Your task to perform on an android device: delete location history Image 0: 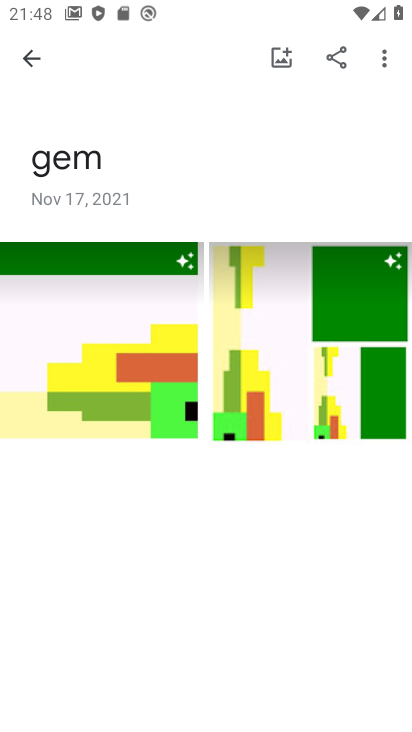
Step 0: press home button
Your task to perform on an android device: delete location history Image 1: 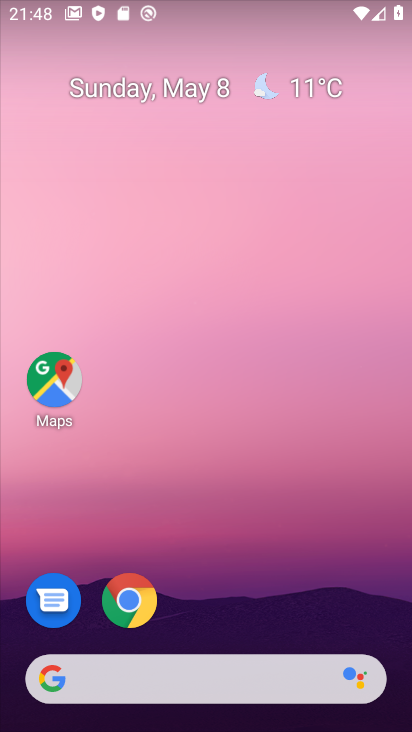
Step 1: click (48, 381)
Your task to perform on an android device: delete location history Image 2: 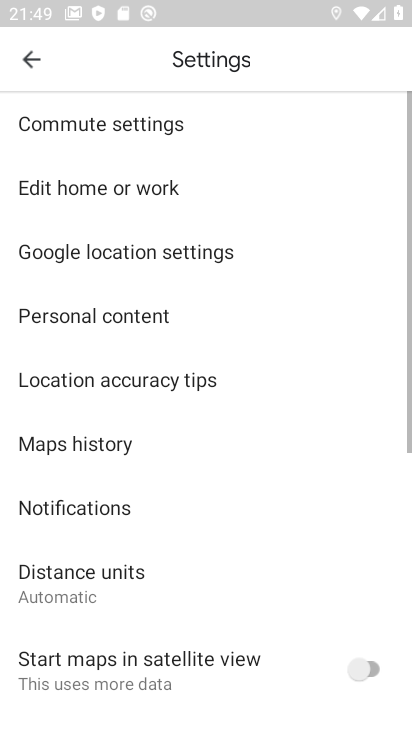
Step 2: click (29, 72)
Your task to perform on an android device: delete location history Image 3: 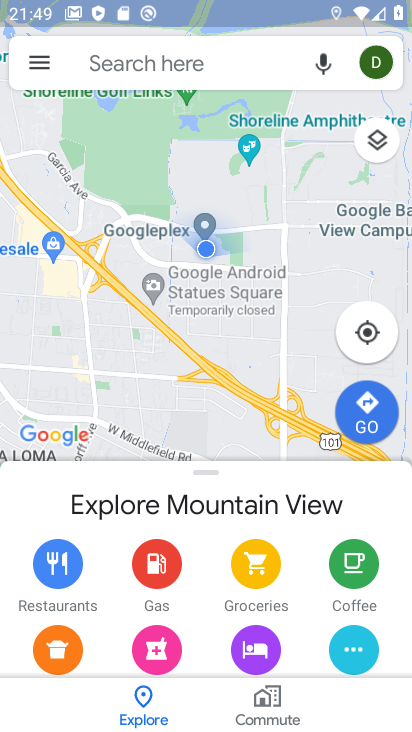
Step 3: click (29, 72)
Your task to perform on an android device: delete location history Image 4: 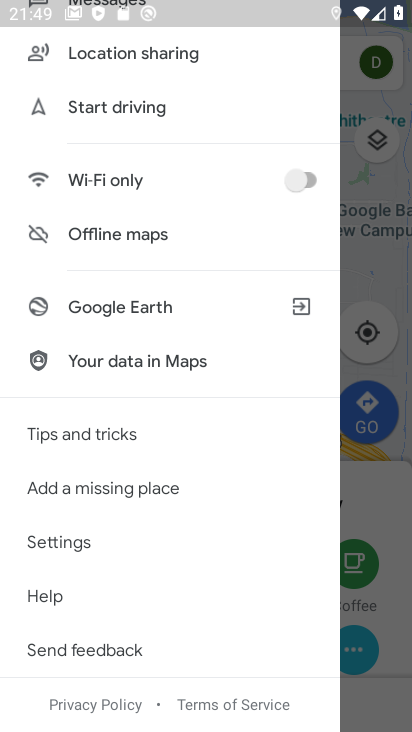
Step 4: drag from (29, 72) to (161, 682)
Your task to perform on an android device: delete location history Image 5: 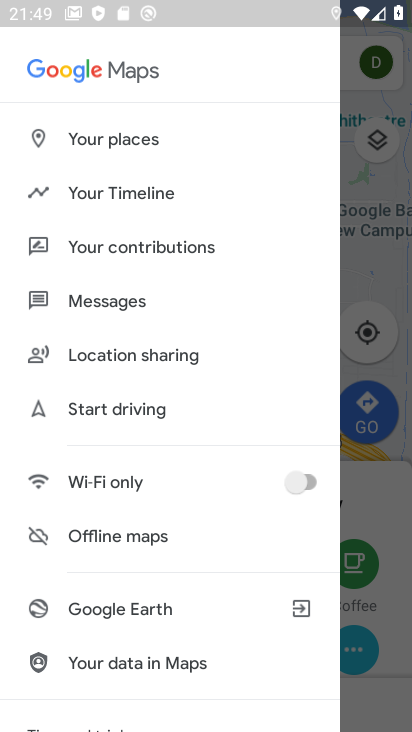
Step 5: drag from (144, 271) to (183, 692)
Your task to perform on an android device: delete location history Image 6: 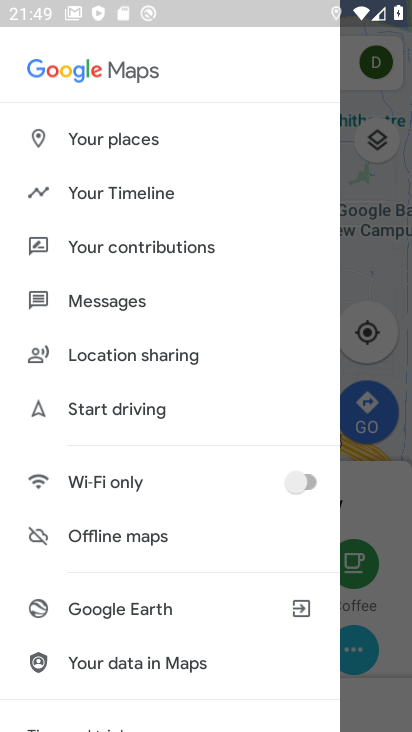
Step 6: drag from (219, 123) to (232, 610)
Your task to perform on an android device: delete location history Image 7: 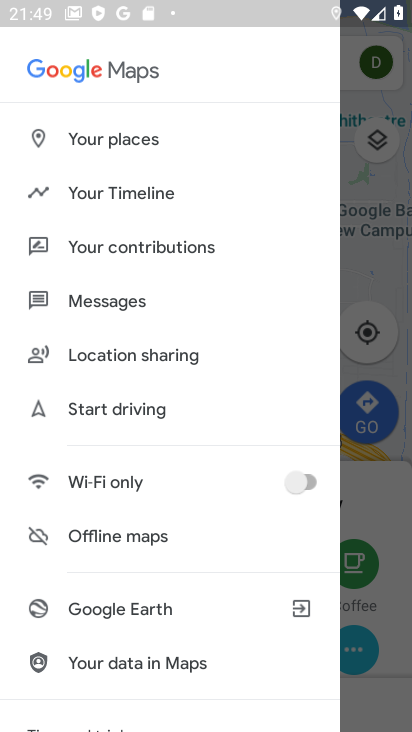
Step 7: click (164, 195)
Your task to perform on an android device: delete location history Image 8: 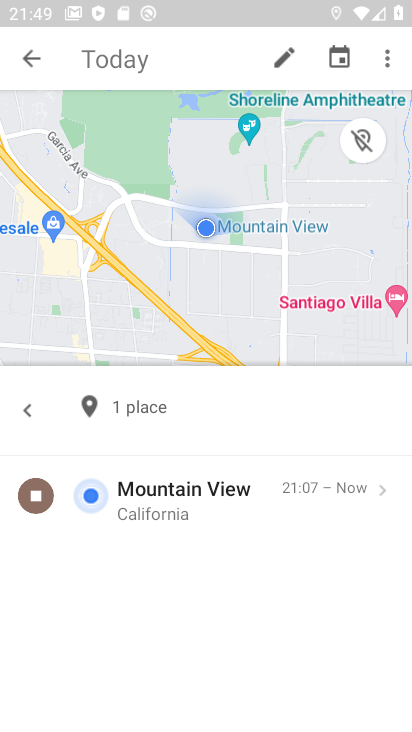
Step 8: click (399, 52)
Your task to perform on an android device: delete location history Image 9: 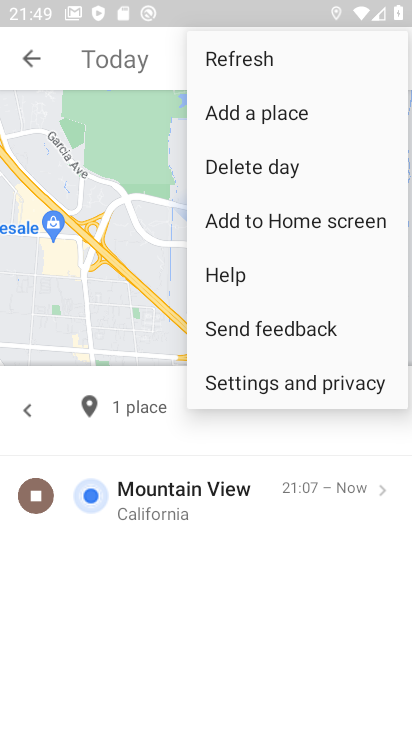
Step 9: click (295, 402)
Your task to perform on an android device: delete location history Image 10: 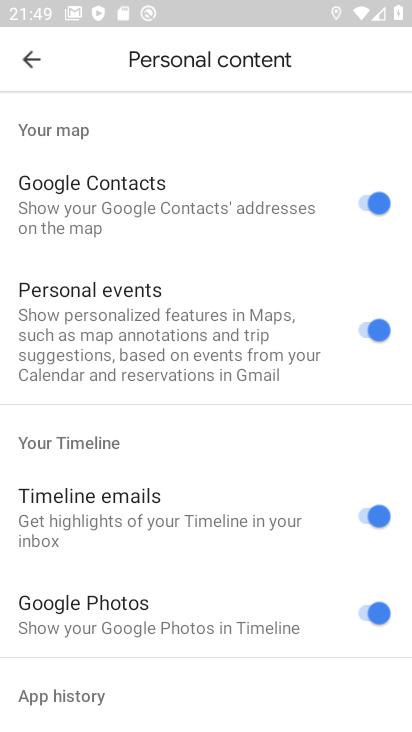
Step 10: drag from (190, 589) to (246, 240)
Your task to perform on an android device: delete location history Image 11: 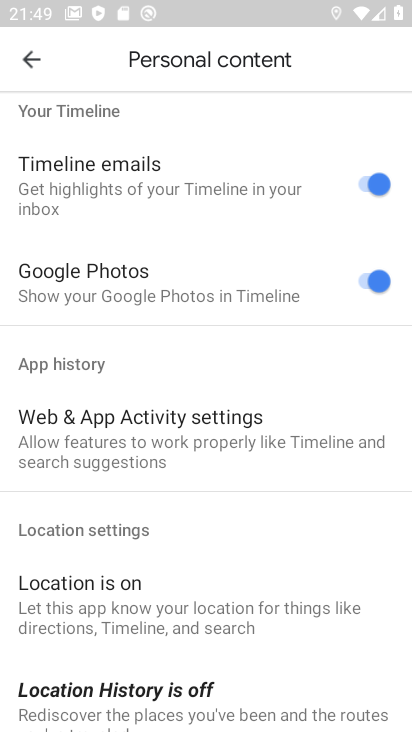
Step 11: drag from (157, 685) to (220, 365)
Your task to perform on an android device: delete location history Image 12: 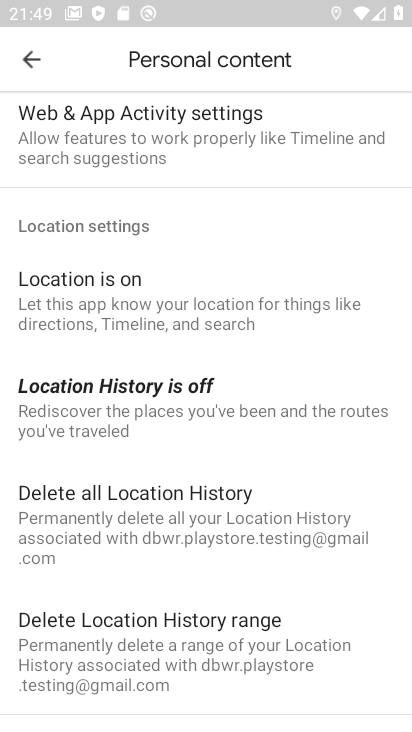
Step 12: click (148, 511)
Your task to perform on an android device: delete location history Image 13: 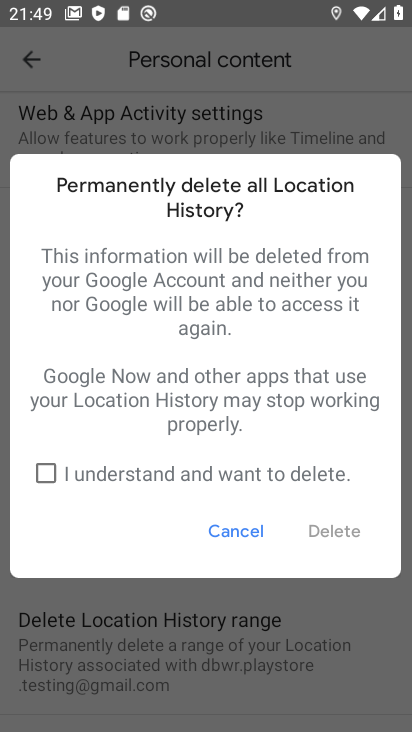
Step 13: click (53, 476)
Your task to perform on an android device: delete location history Image 14: 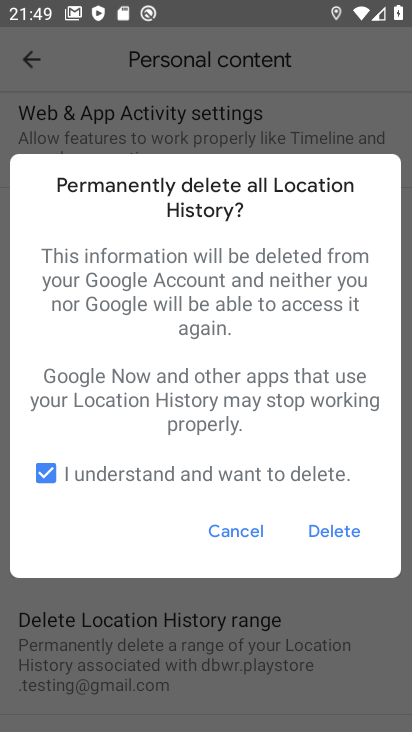
Step 14: click (325, 543)
Your task to perform on an android device: delete location history Image 15: 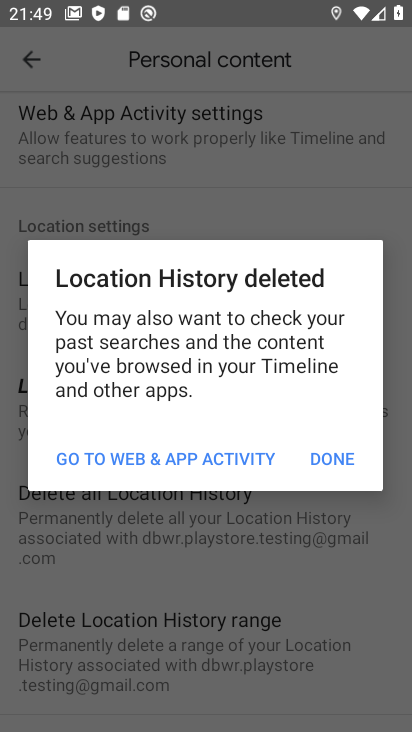
Step 15: click (334, 467)
Your task to perform on an android device: delete location history Image 16: 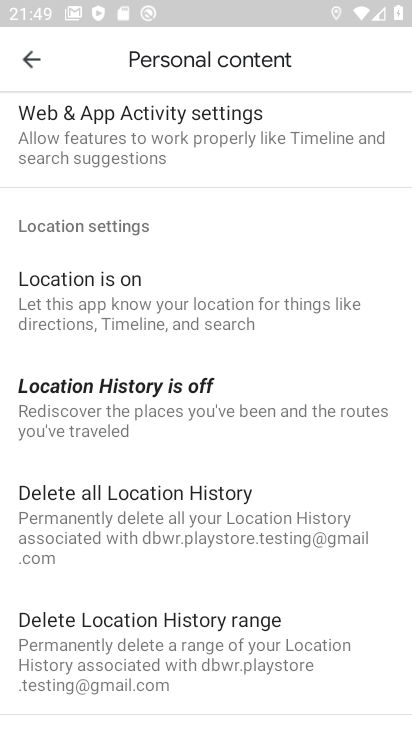
Step 16: task complete